Your task to perform on an android device: What's on the menu at Starbucks? Image 0: 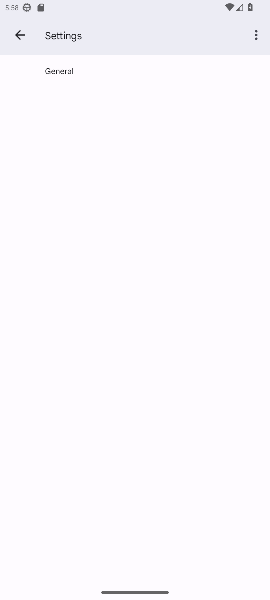
Step 0: press home button
Your task to perform on an android device: What's on the menu at Starbucks? Image 1: 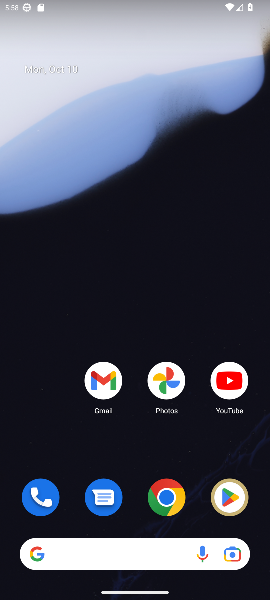
Step 1: drag from (109, 508) to (101, 163)
Your task to perform on an android device: What's on the menu at Starbucks? Image 2: 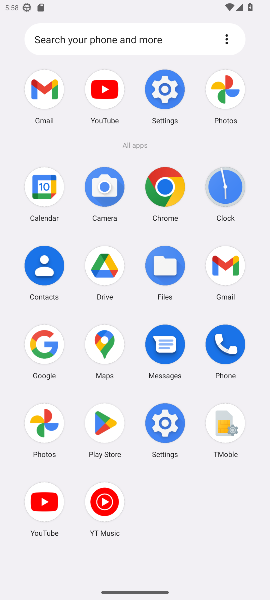
Step 2: click (29, 346)
Your task to perform on an android device: What's on the menu at Starbucks? Image 3: 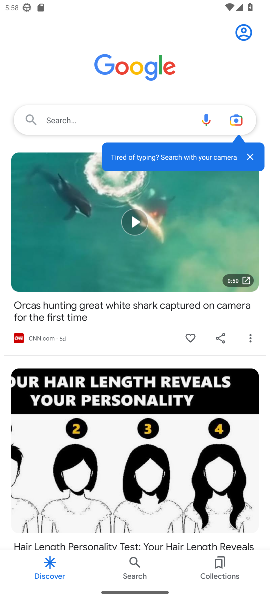
Step 3: click (86, 105)
Your task to perform on an android device: What's on the menu at Starbucks? Image 4: 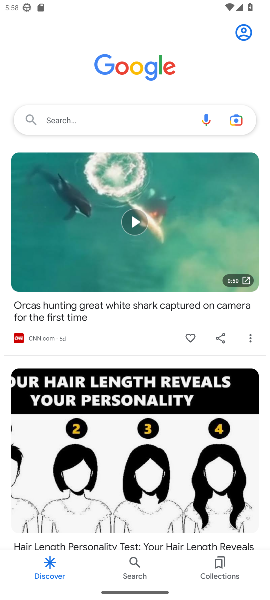
Step 4: click (71, 114)
Your task to perform on an android device: What's on the menu at Starbucks? Image 5: 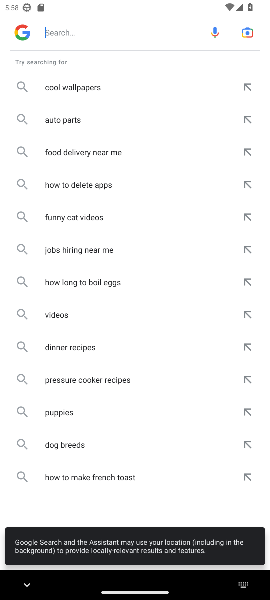
Step 5: type "What's on the menu at Starbucks? "
Your task to perform on an android device: What's on the menu at Starbucks? Image 6: 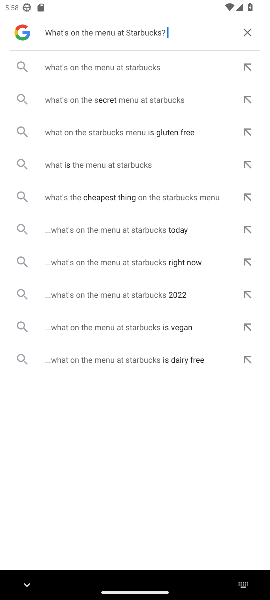
Step 6: click (110, 65)
Your task to perform on an android device: What's on the menu at Starbucks? Image 7: 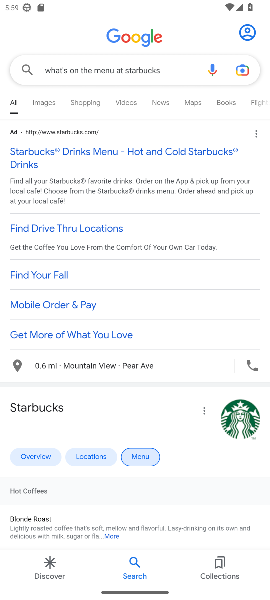
Step 7: click (100, 152)
Your task to perform on an android device: What's on the menu at Starbucks? Image 8: 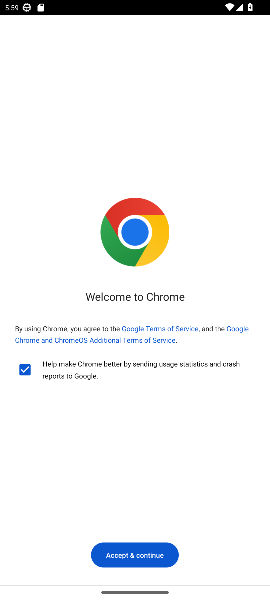
Step 8: click (104, 554)
Your task to perform on an android device: What's on the menu at Starbucks? Image 9: 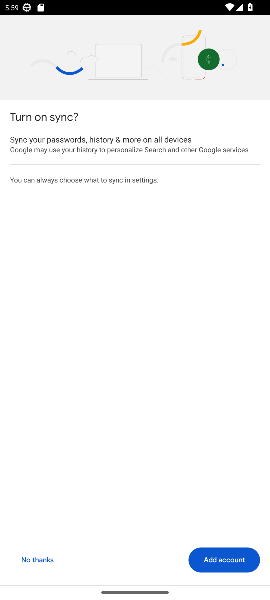
Step 9: click (50, 564)
Your task to perform on an android device: What's on the menu at Starbucks? Image 10: 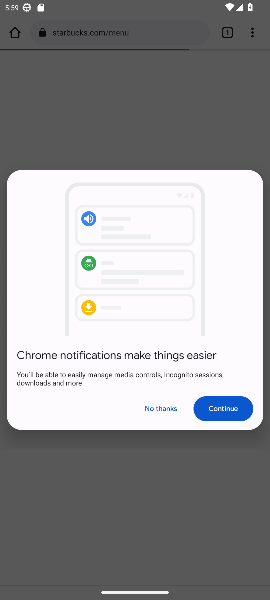
Step 10: click (166, 406)
Your task to perform on an android device: What's on the menu at Starbucks? Image 11: 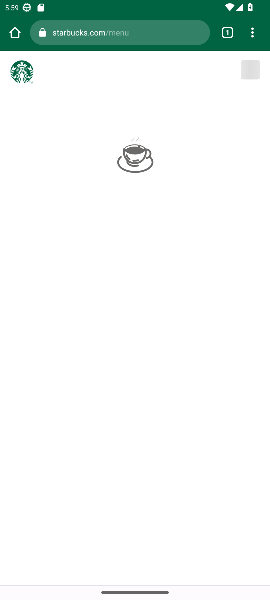
Step 11: task complete